Your task to perform on an android device: snooze an email in the gmail app Image 0: 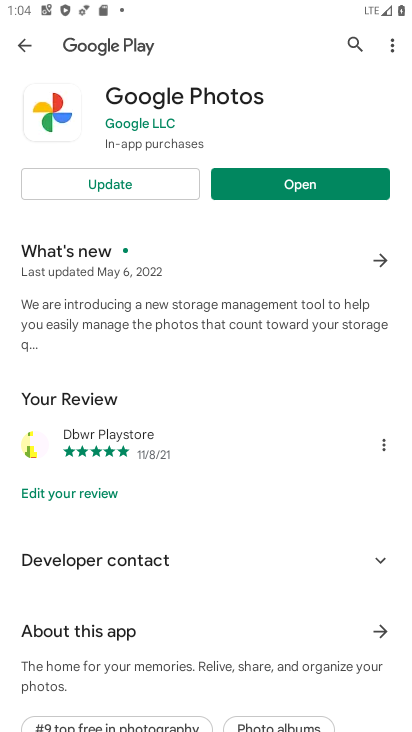
Step 0: press home button
Your task to perform on an android device: snooze an email in the gmail app Image 1: 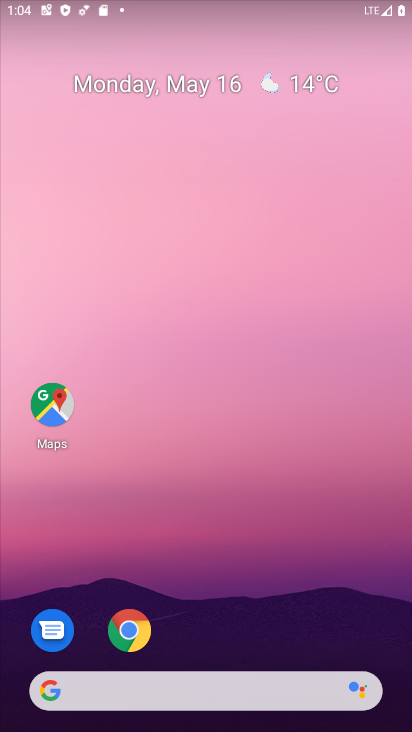
Step 1: drag from (299, 655) to (261, 162)
Your task to perform on an android device: snooze an email in the gmail app Image 2: 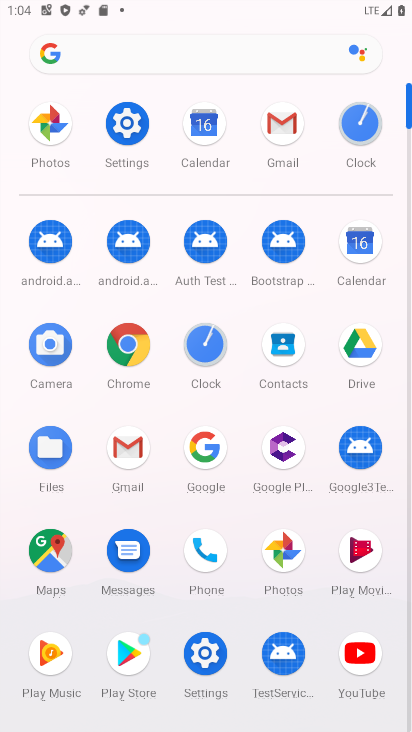
Step 2: click (130, 452)
Your task to perform on an android device: snooze an email in the gmail app Image 3: 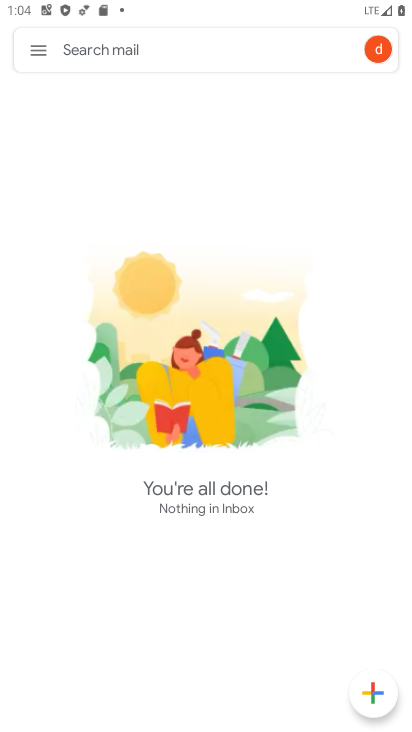
Step 3: click (44, 50)
Your task to perform on an android device: snooze an email in the gmail app Image 4: 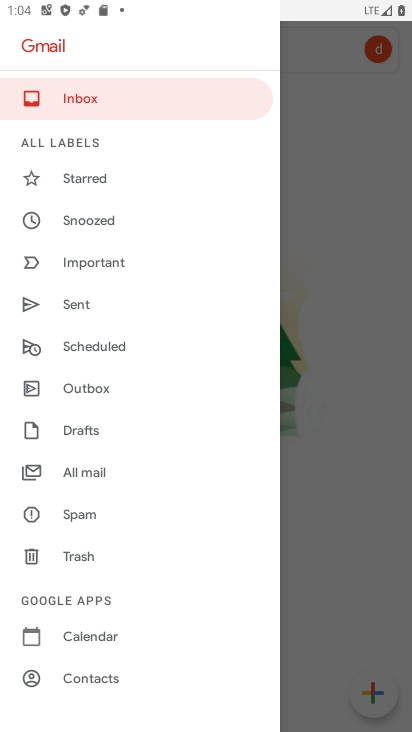
Step 4: click (79, 474)
Your task to perform on an android device: snooze an email in the gmail app Image 5: 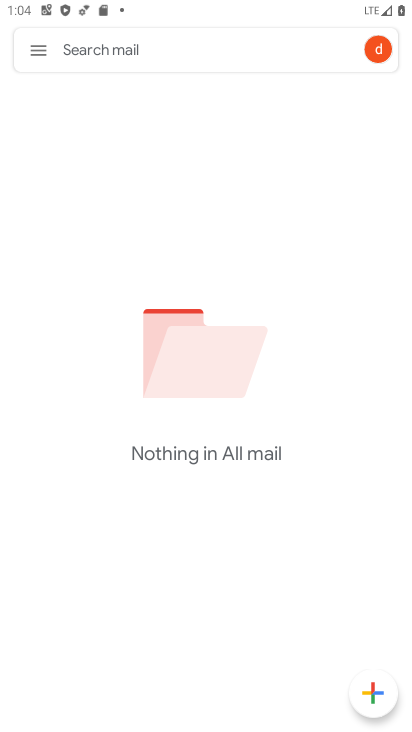
Step 5: task complete